Your task to perform on an android device: Check the news Image 0: 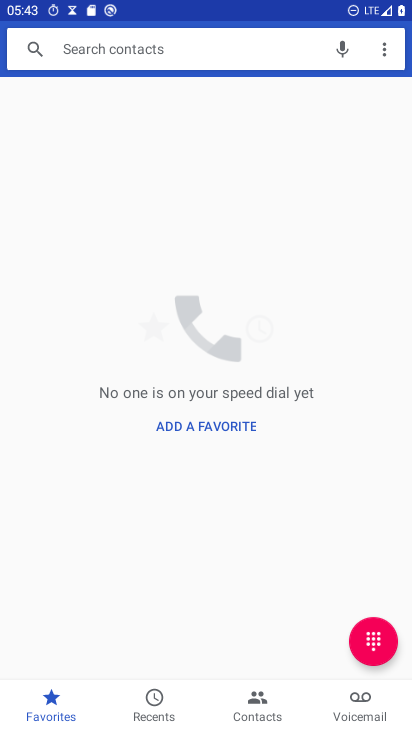
Step 0: drag from (309, 692) to (331, 489)
Your task to perform on an android device: Check the news Image 1: 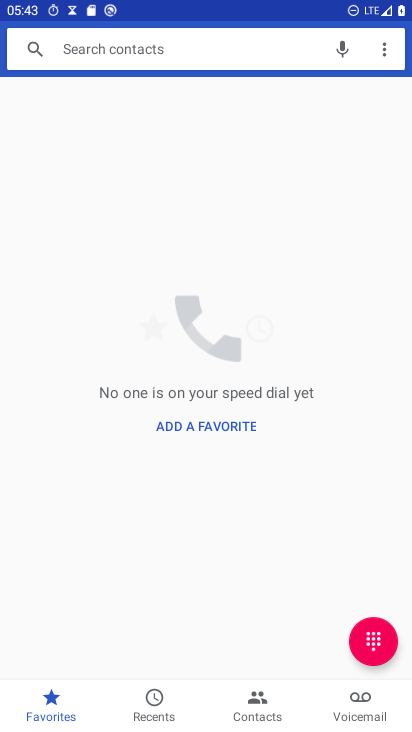
Step 1: press home button
Your task to perform on an android device: Check the news Image 2: 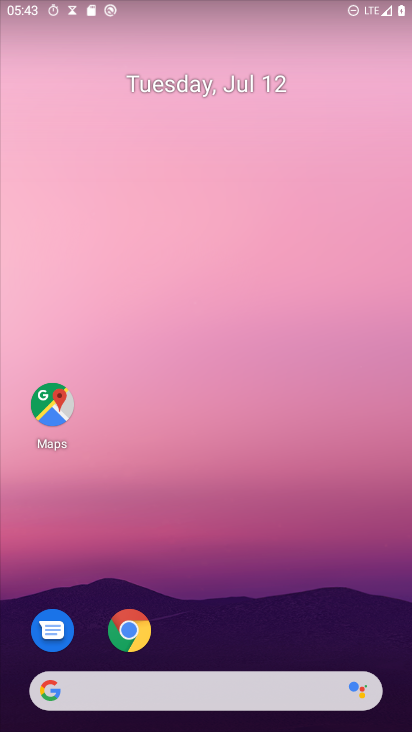
Step 2: drag from (238, 678) to (317, 123)
Your task to perform on an android device: Check the news Image 3: 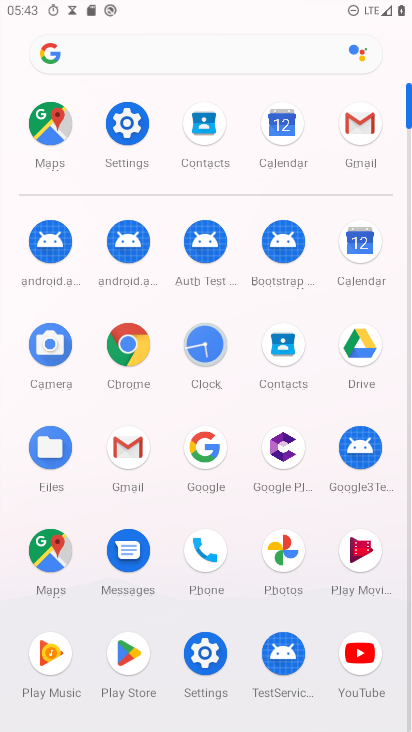
Step 3: click (137, 345)
Your task to perform on an android device: Check the news Image 4: 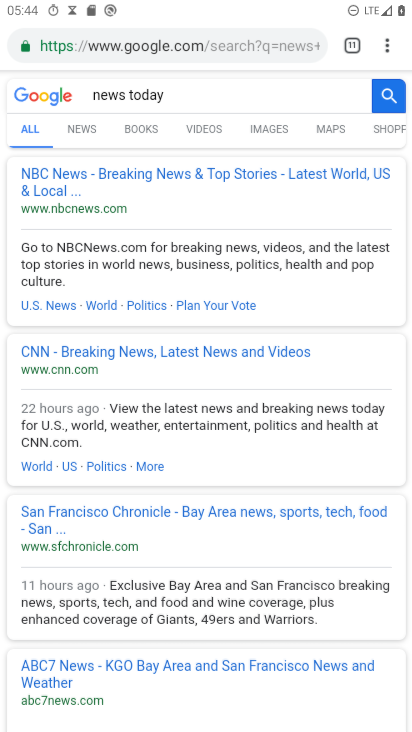
Step 4: click (244, 46)
Your task to perform on an android device: Check the news Image 5: 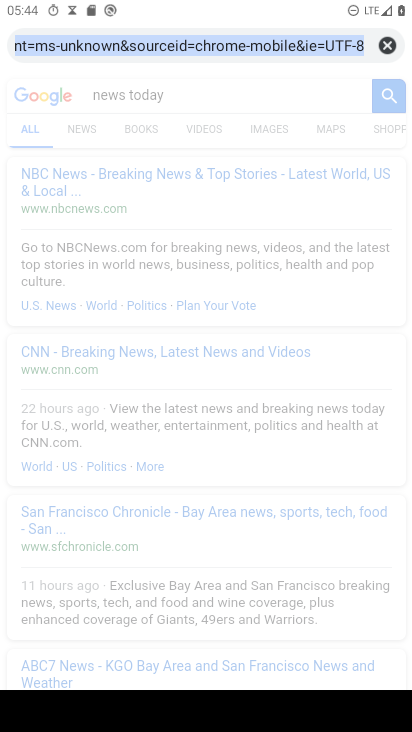
Step 5: type "check the news"
Your task to perform on an android device: Check the news Image 6: 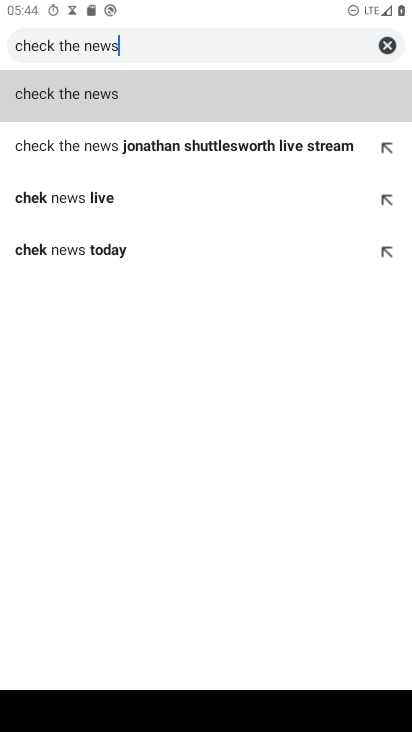
Step 6: click (159, 109)
Your task to perform on an android device: Check the news Image 7: 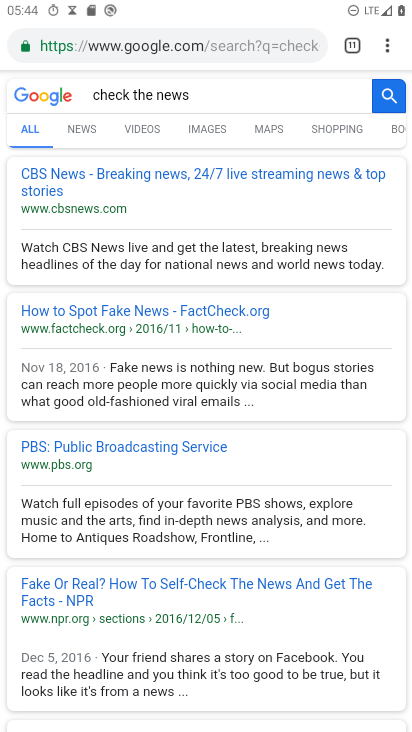
Step 7: task complete